Your task to perform on an android device: toggle javascript in the chrome app Image 0: 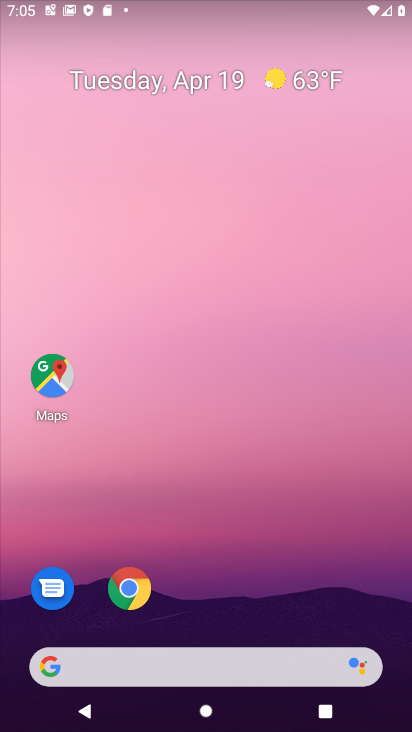
Step 0: click (130, 592)
Your task to perform on an android device: toggle javascript in the chrome app Image 1: 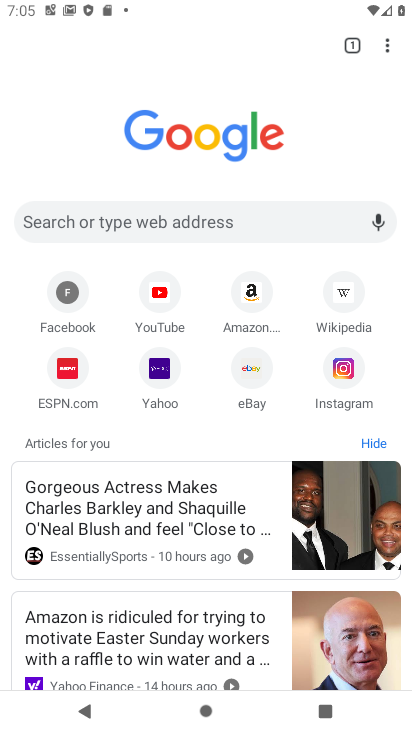
Step 1: click (388, 41)
Your task to perform on an android device: toggle javascript in the chrome app Image 2: 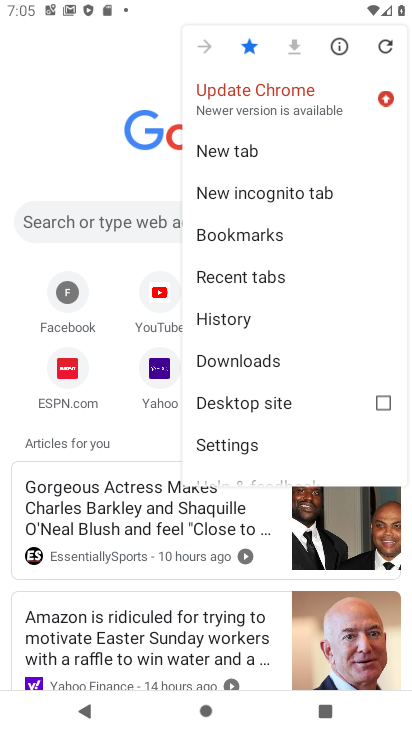
Step 2: click (215, 439)
Your task to perform on an android device: toggle javascript in the chrome app Image 3: 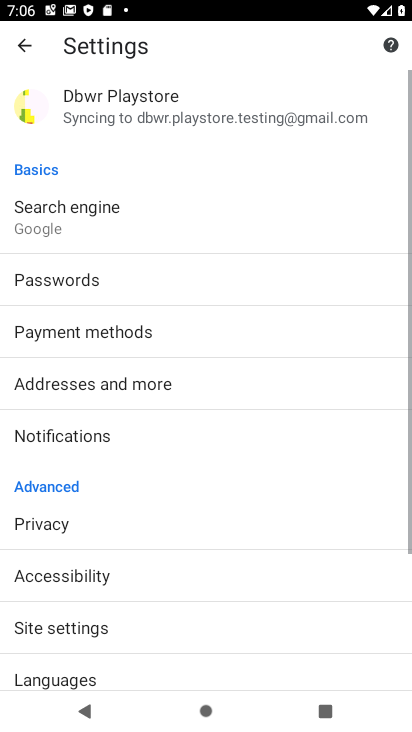
Step 3: click (56, 627)
Your task to perform on an android device: toggle javascript in the chrome app Image 4: 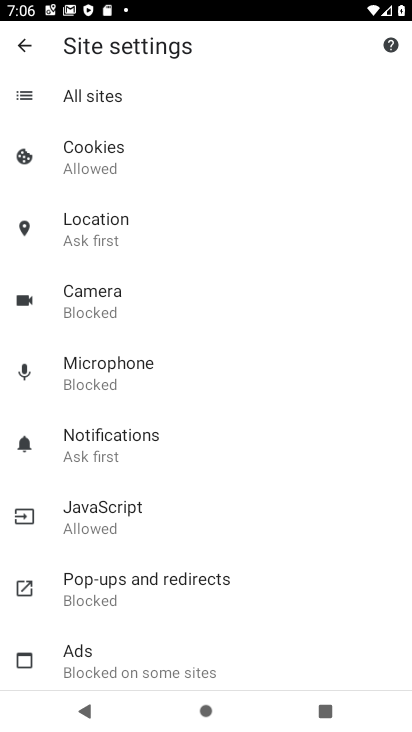
Step 4: click (89, 501)
Your task to perform on an android device: toggle javascript in the chrome app Image 5: 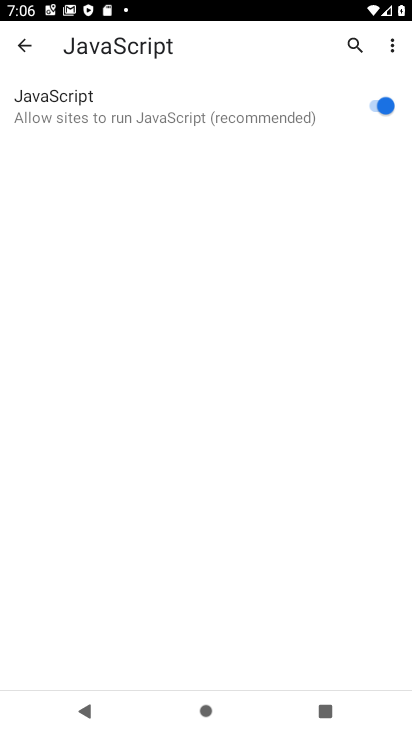
Step 5: click (390, 110)
Your task to perform on an android device: toggle javascript in the chrome app Image 6: 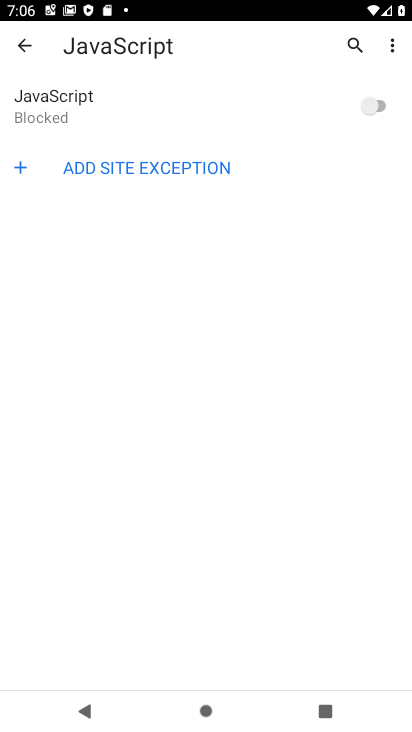
Step 6: task complete